Your task to perform on an android device: uninstall "PUBG MOBILE" Image 0: 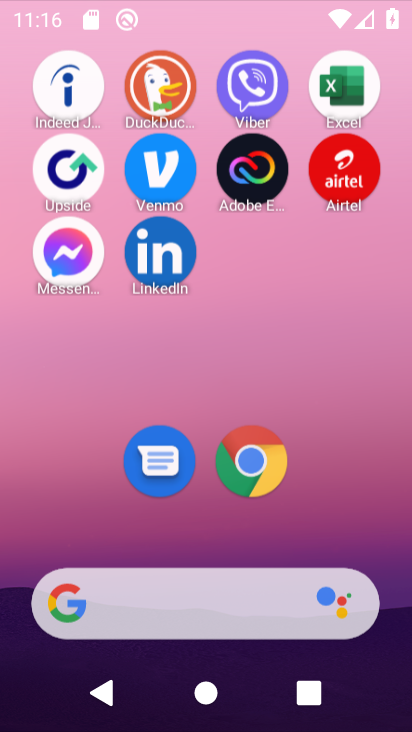
Step 0: click (228, 212)
Your task to perform on an android device: uninstall "PUBG MOBILE" Image 1: 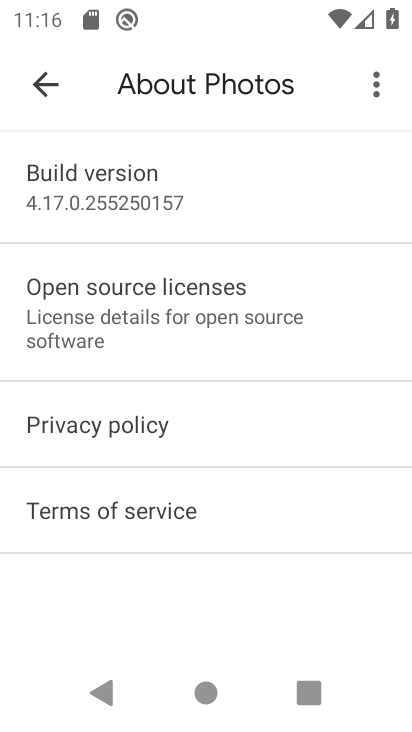
Step 1: press home button
Your task to perform on an android device: uninstall "PUBG MOBILE" Image 2: 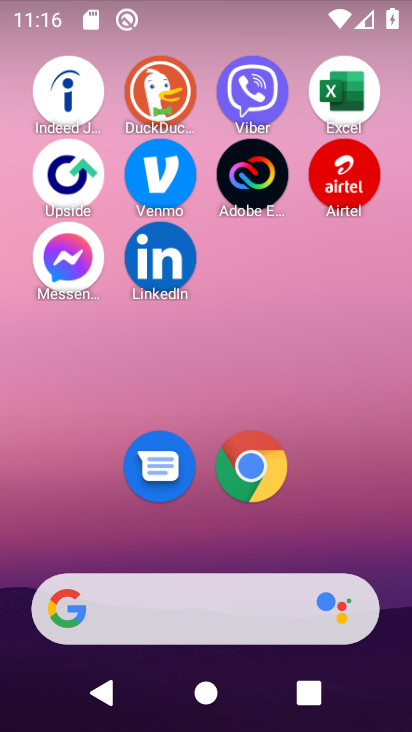
Step 2: click (238, 721)
Your task to perform on an android device: uninstall "PUBG MOBILE" Image 3: 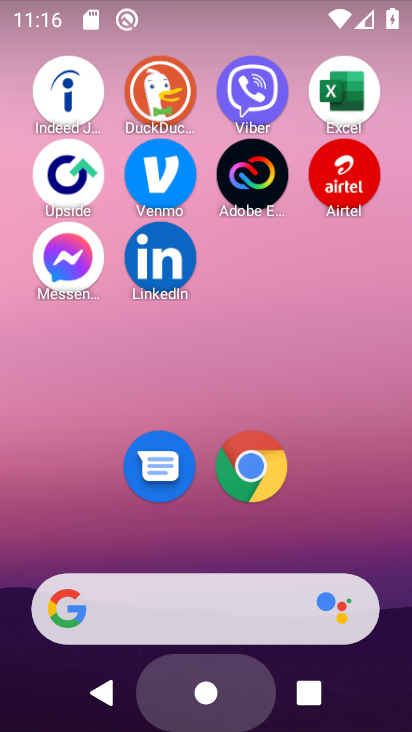
Step 3: drag from (209, 315) to (186, 100)
Your task to perform on an android device: uninstall "PUBG MOBILE" Image 4: 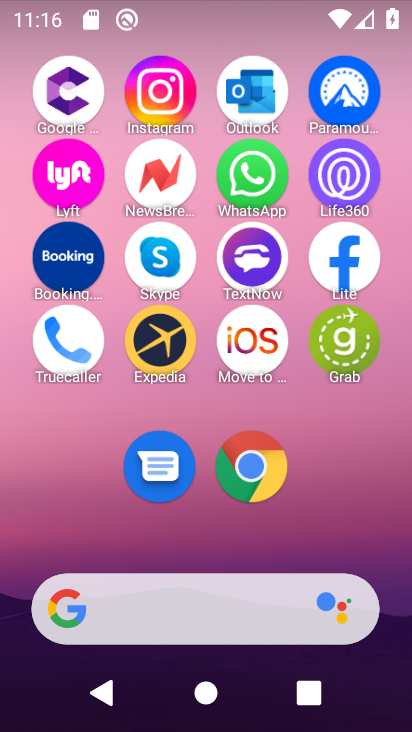
Step 4: drag from (109, 519) to (328, 536)
Your task to perform on an android device: uninstall "PUBG MOBILE" Image 5: 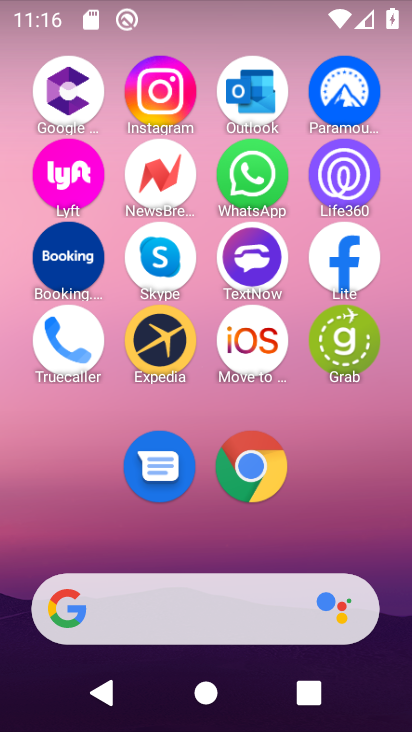
Step 5: click (210, 725)
Your task to perform on an android device: uninstall "PUBG MOBILE" Image 6: 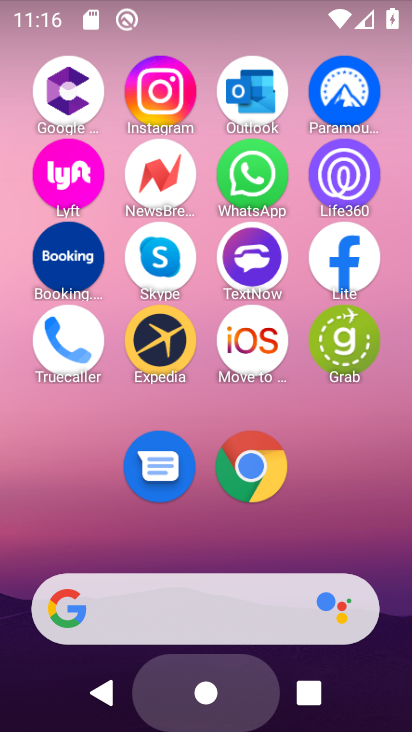
Step 6: drag from (192, 414) to (189, 252)
Your task to perform on an android device: uninstall "PUBG MOBILE" Image 7: 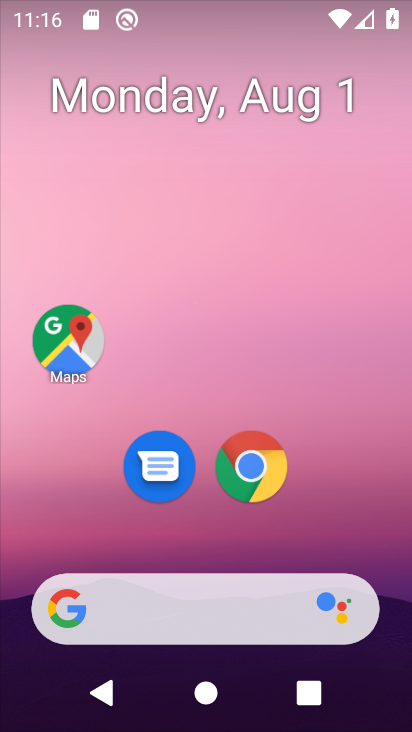
Step 7: drag from (205, 730) to (169, 126)
Your task to perform on an android device: uninstall "PUBG MOBILE" Image 8: 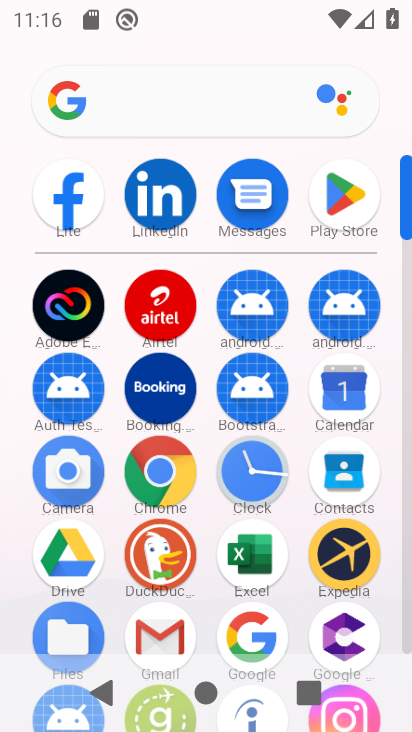
Step 8: click (345, 201)
Your task to perform on an android device: uninstall "PUBG MOBILE" Image 9: 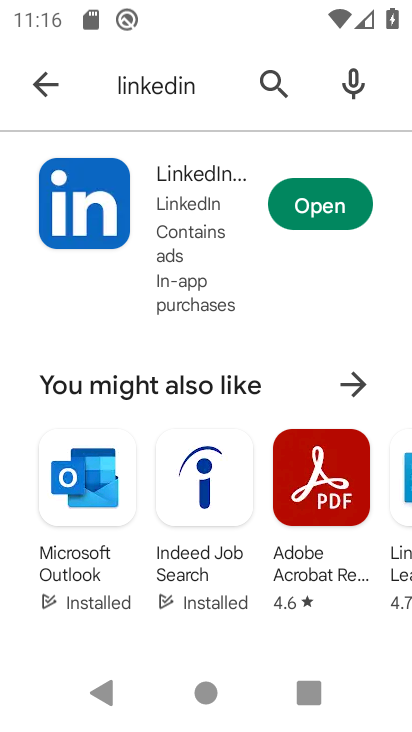
Step 9: click (269, 78)
Your task to perform on an android device: uninstall "PUBG MOBILE" Image 10: 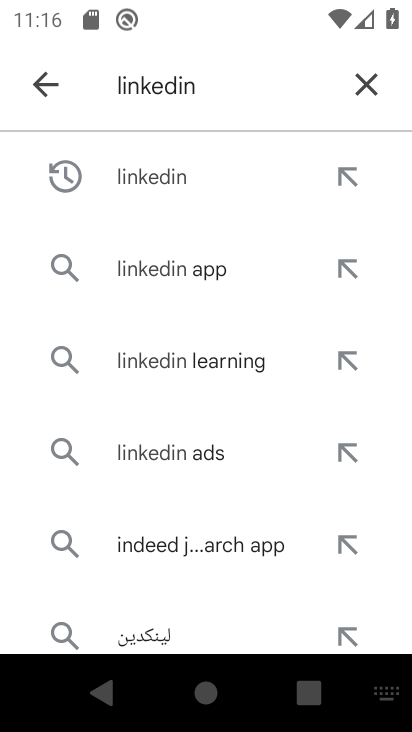
Step 10: click (368, 74)
Your task to perform on an android device: uninstall "PUBG MOBILE" Image 11: 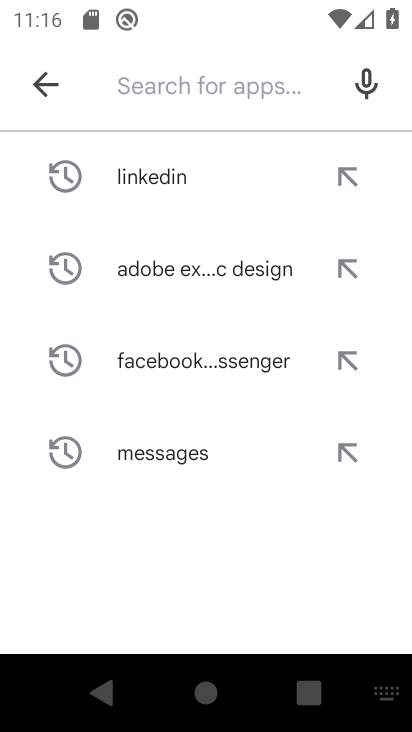
Step 11: type "PUBG MOBILE"
Your task to perform on an android device: uninstall "PUBG MOBILE" Image 12: 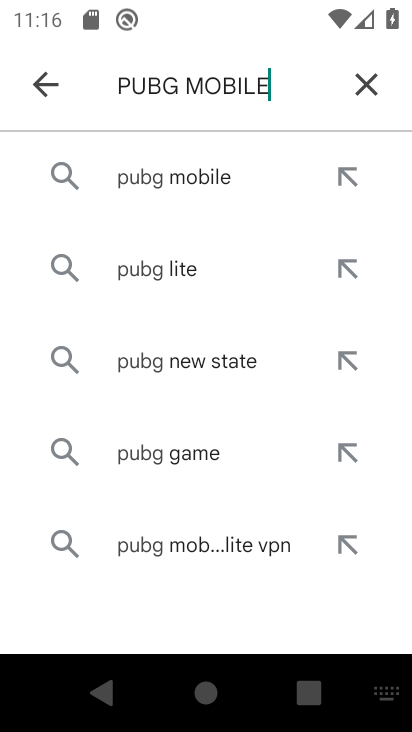
Step 12: type ""
Your task to perform on an android device: uninstall "PUBG MOBILE" Image 13: 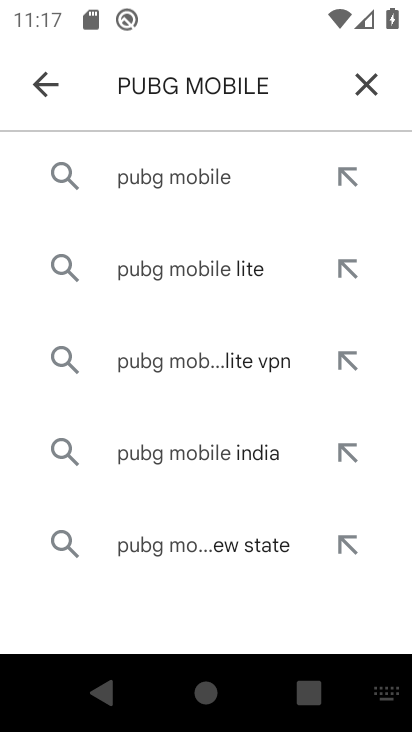
Step 13: click (194, 178)
Your task to perform on an android device: uninstall "PUBG MOBILE" Image 14: 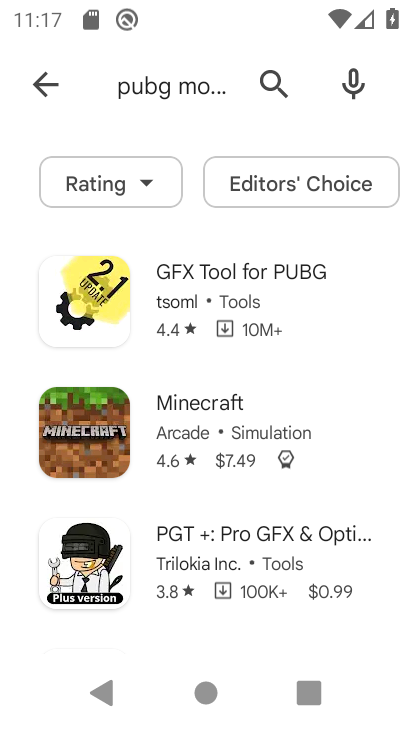
Step 14: task complete